Your task to perform on an android device: Open Google Image 0: 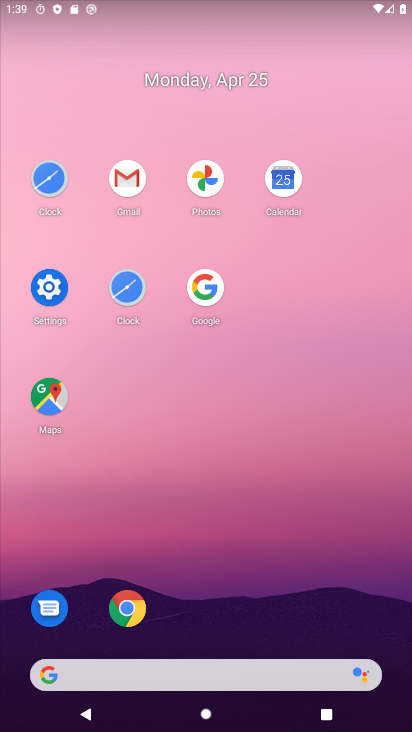
Step 0: click (212, 293)
Your task to perform on an android device: Open Google Image 1: 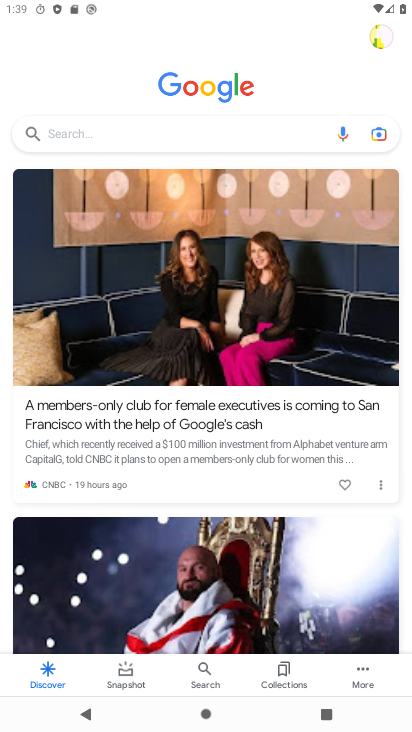
Step 1: task complete